Your task to perform on an android device: What's on my calendar today? Image 0: 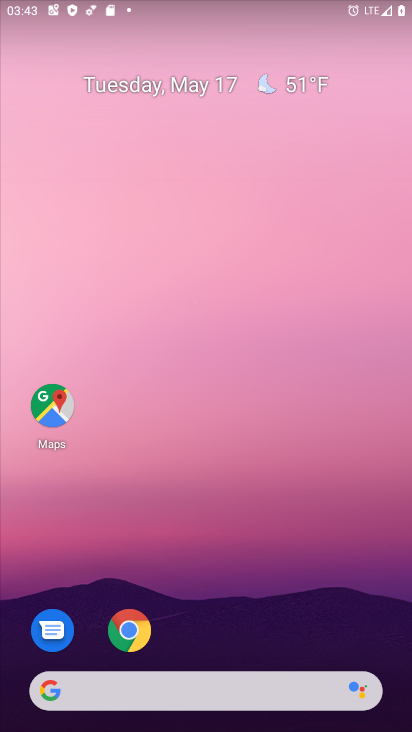
Step 0: drag from (237, 517) to (339, 111)
Your task to perform on an android device: What's on my calendar today? Image 1: 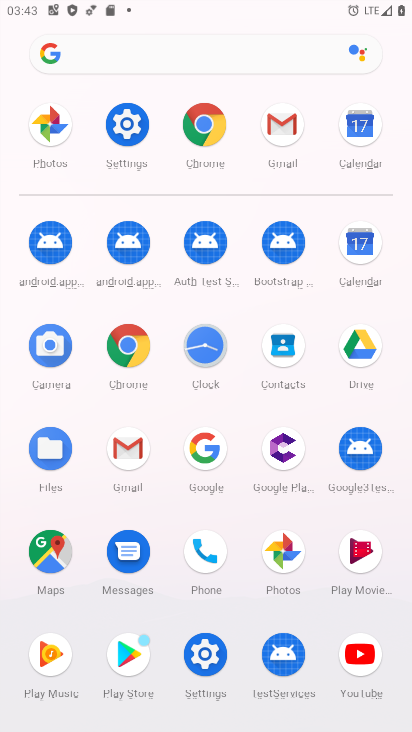
Step 1: click (361, 254)
Your task to perform on an android device: What's on my calendar today? Image 2: 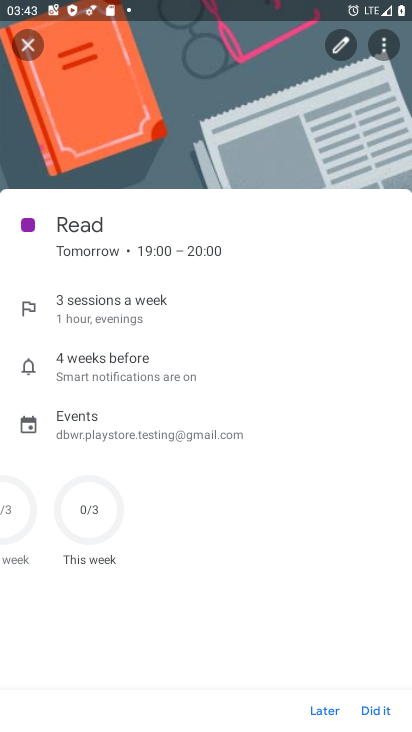
Step 2: click (34, 41)
Your task to perform on an android device: What's on my calendar today? Image 3: 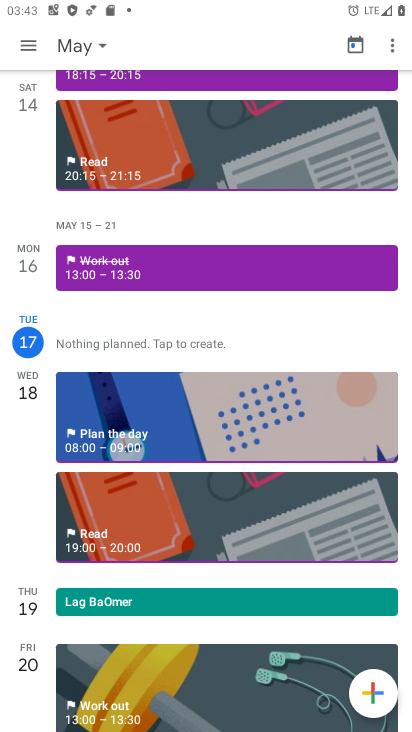
Step 3: click (95, 41)
Your task to perform on an android device: What's on my calendar today? Image 4: 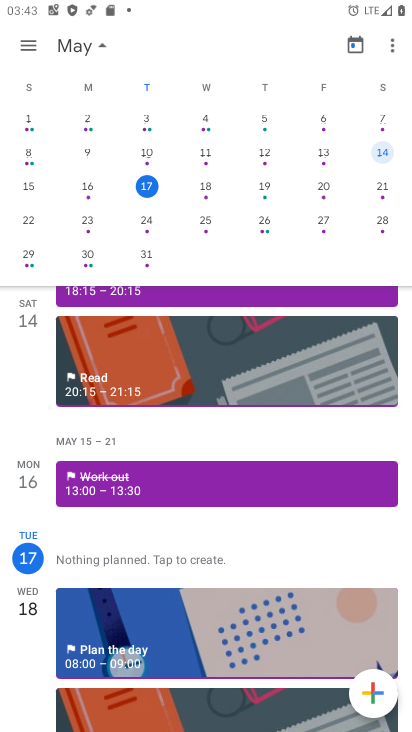
Step 4: click (100, 42)
Your task to perform on an android device: What's on my calendar today? Image 5: 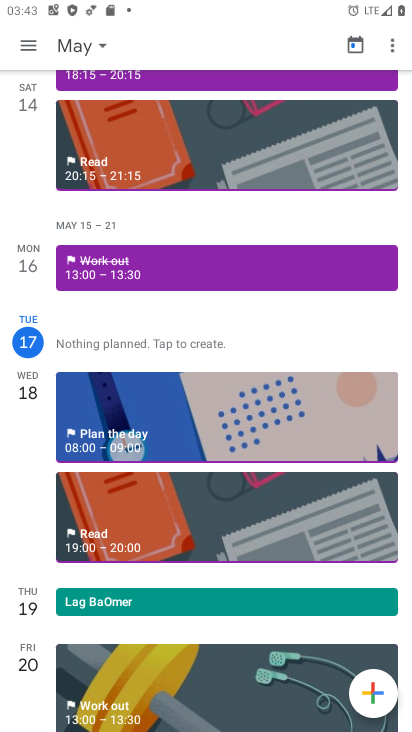
Step 5: task complete